Your task to perform on an android device: open app "eBay: The shopping marketplace" Image 0: 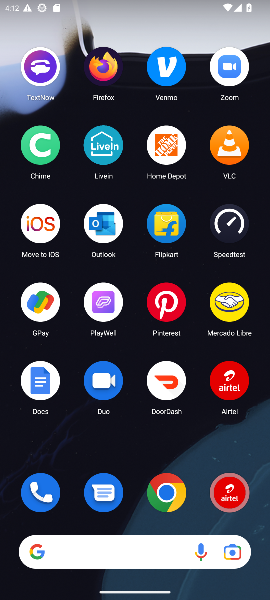
Step 0: drag from (137, 523) to (163, 32)
Your task to perform on an android device: open app "eBay: The shopping marketplace" Image 1: 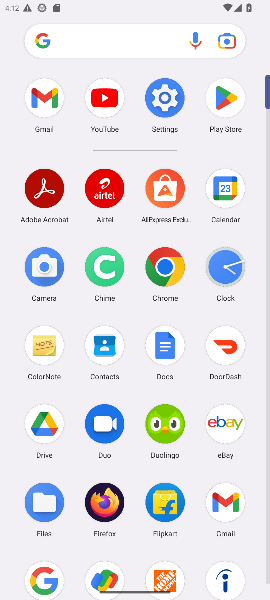
Step 1: click (228, 106)
Your task to perform on an android device: open app "eBay: The shopping marketplace" Image 2: 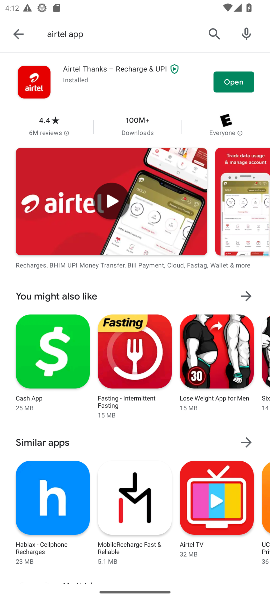
Step 2: click (221, 46)
Your task to perform on an android device: open app "eBay: The shopping marketplace" Image 3: 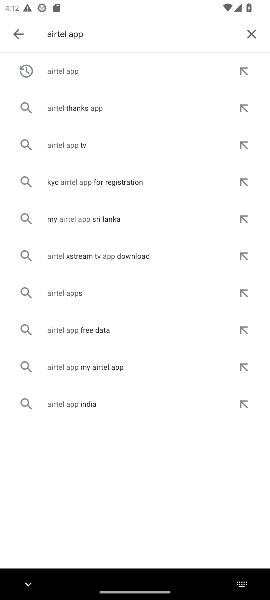
Step 3: click (257, 40)
Your task to perform on an android device: open app "eBay: The shopping marketplace" Image 4: 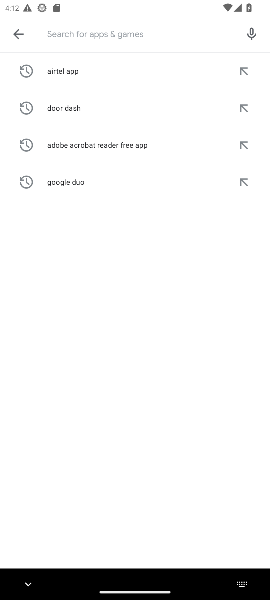
Step 4: type "ebay"
Your task to perform on an android device: open app "eBay: The shopping marketplace" Image 5: 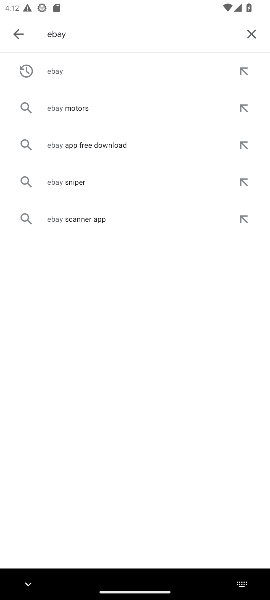
Step 5: click (66, 68)
Your task to perform on an android device: open app "eBay: The shopping marketplace" Image 6: 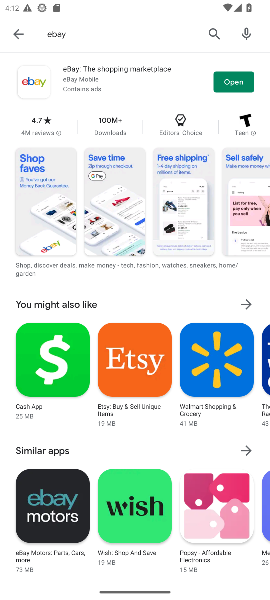
Step 6: click (229, 85)
Your task to perform on an android device: open app "eBay: The shopping marketplace" Image 7: 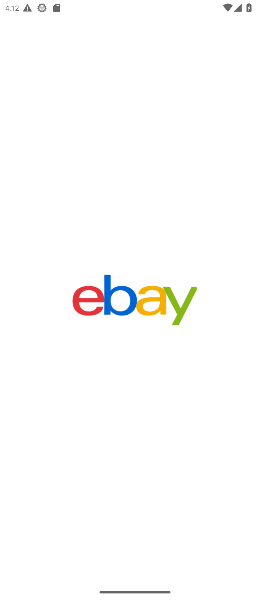
Step 7: task complete